Your task to perform on an android device: remove spam from my inbox in the gmail app Image 0: 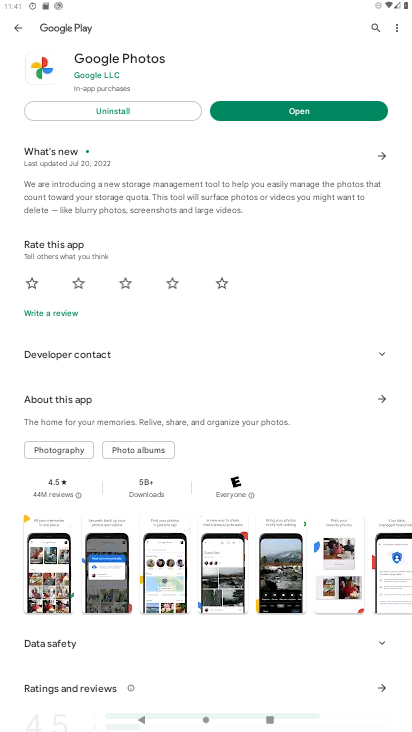
Step 0: press home button
Your task to perform on an android device: remove spam from my inbox in the gmail app Image 1: 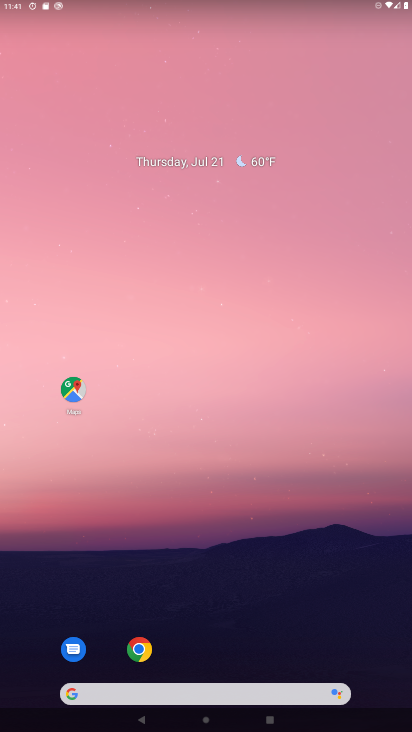
Step 1: drag from (377, 633) to (379, 20)
Your task to perform on an android device: remove spam from my inbox in the gmail app Image 2: 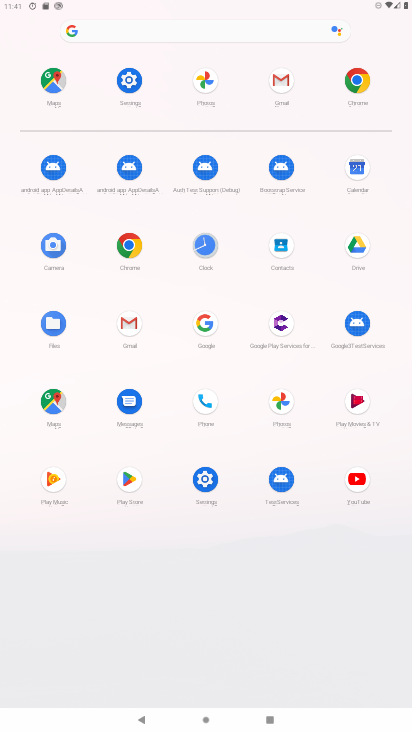
Step 2: click (120, 321)
Your task to perform on an android device: remove spam from my inbox in the gmail app Image 3: 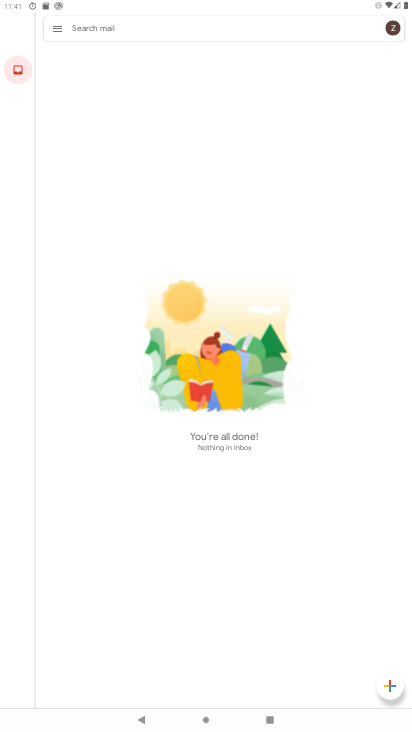
Step 3: click (55, 31)
Your task to perform on an android device: remove spam from my inbox in the gmail app Image 4: 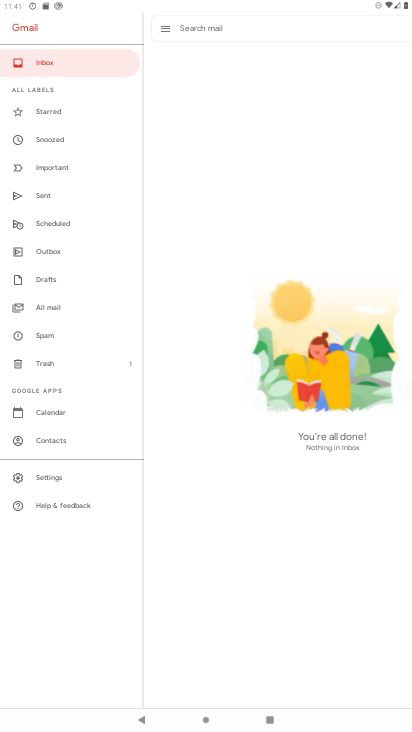
Step 4: click (47, 335)
Your task to perform on an android device: remove spam from my inbox in the gmail app Image 5: 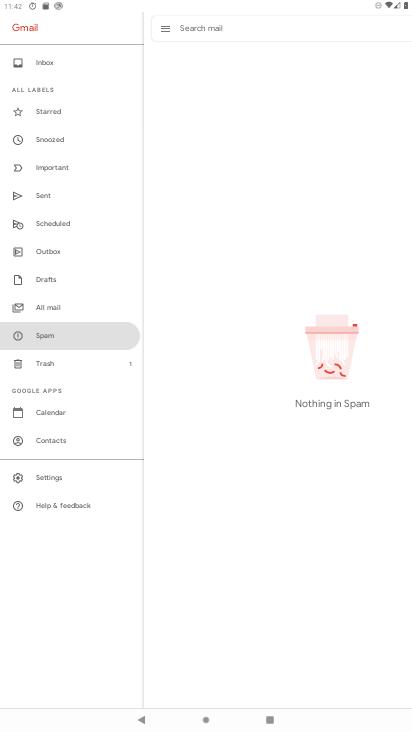
Step 5: task complete